Your task to perform on an android device: Open Google Maps Image 0: 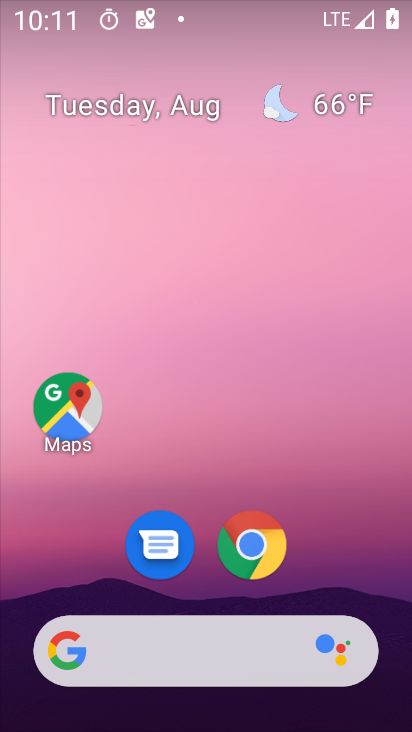
Step 0: press home button
Your task to perform on an android device: Open Google Maps Image 1: 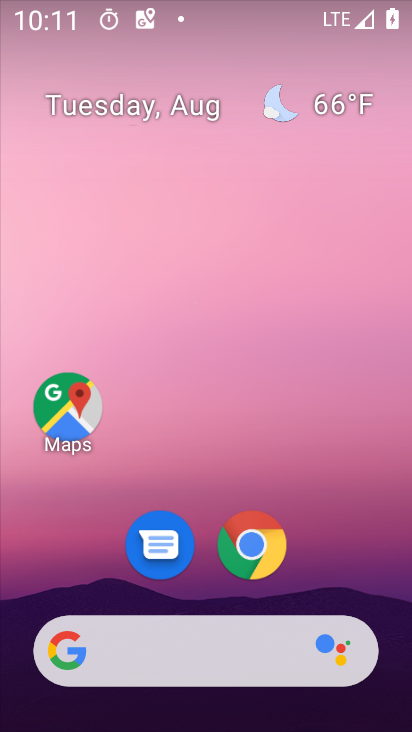
Step 1: drag from (222, 718) to (408, 442)
Your task to perform on an android device: Open Google Maps Image 2: 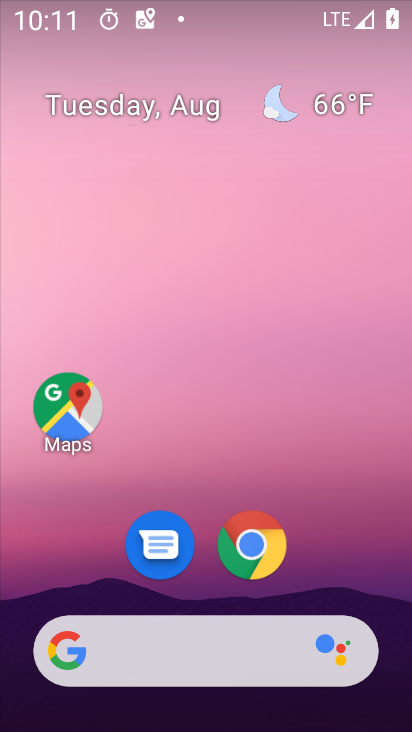
Step 2: drag from (261, 672) to (292, 170)
Your task to perform on an android device: Open Google Maps Image 3: 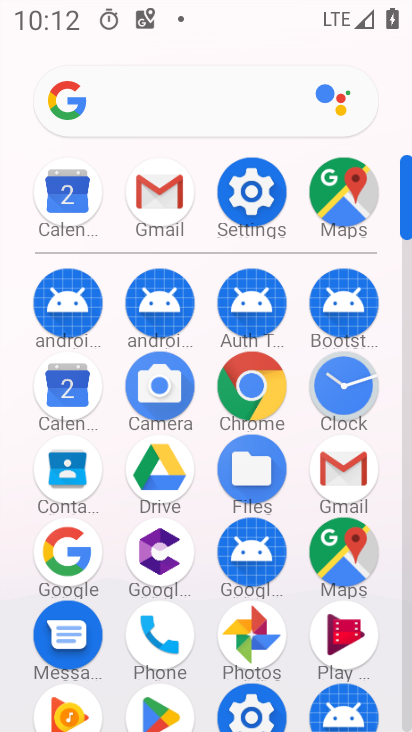
Step 3: click (342, 570)
Your task to perform on an android device: Open Google Maps Image 4: 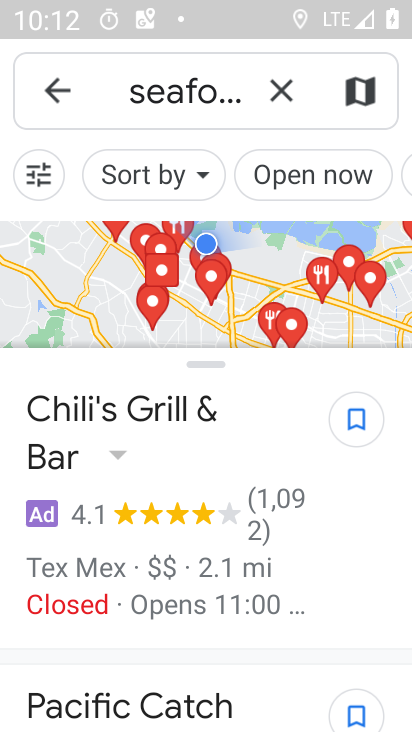
Step 4: task complete